Your task to perform on an android device: open app "McDonald's" Image 0: 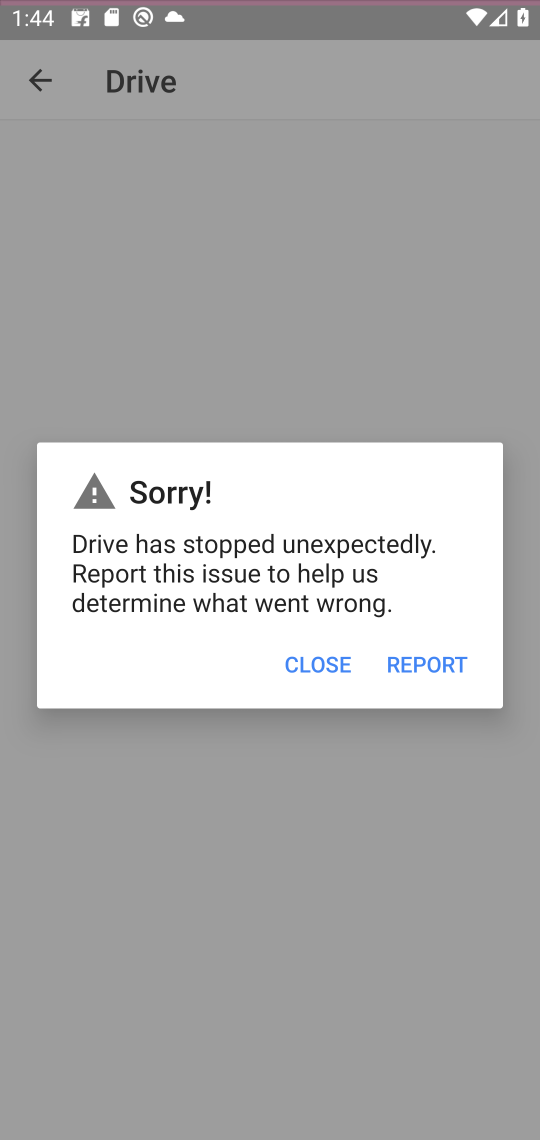
Step 0: press home button
Your task to perform on an android device: open app "McDonald's" Image 1: 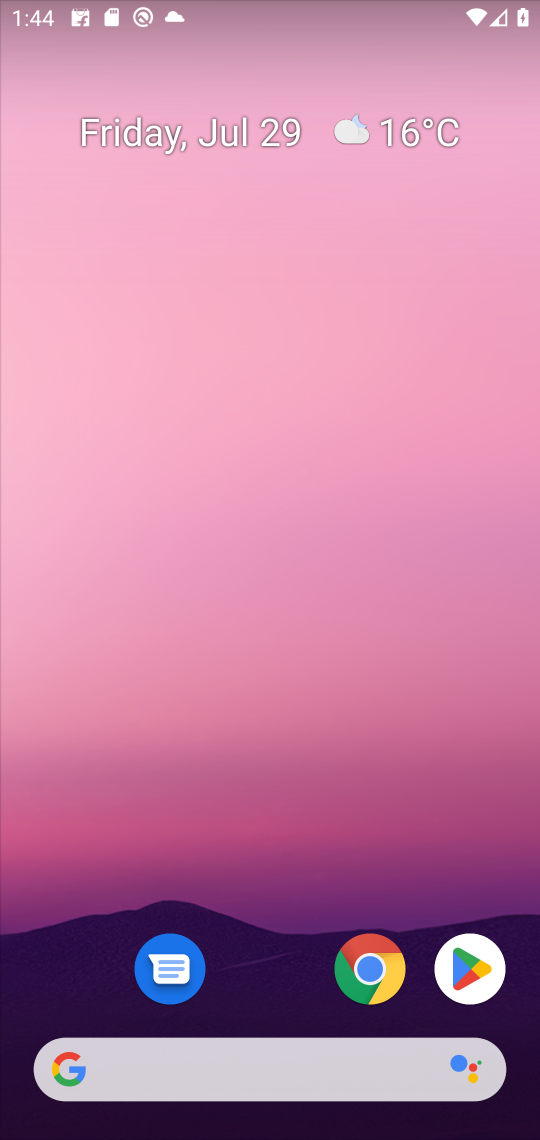
Step 1: click (476, 958)
Your task to perform on an android device: open app "McDonald's" Image 2: 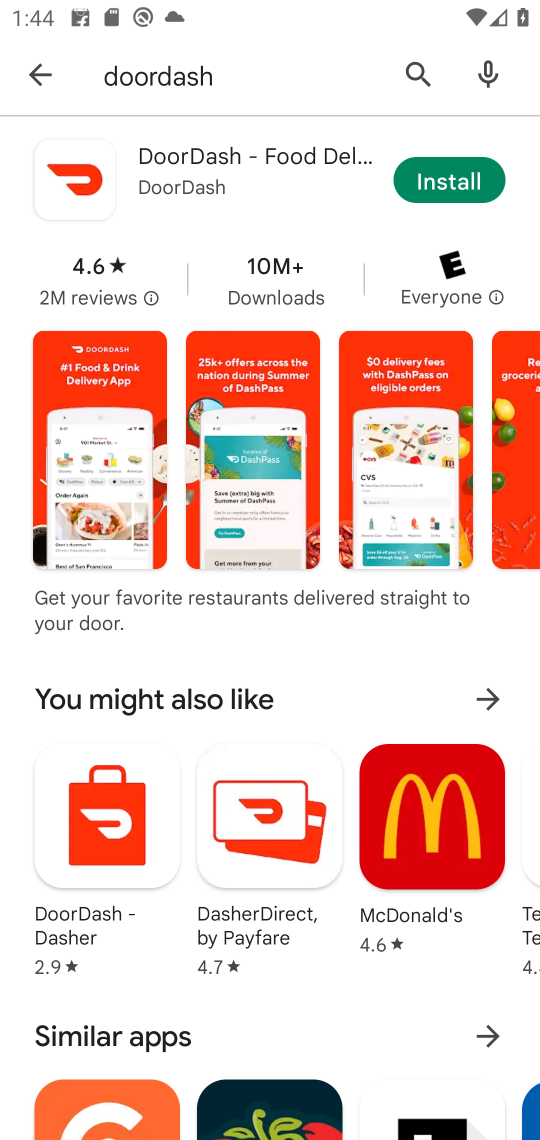
Step 2: click (417, 83)
Your task to perform on an android device: open app "McDonald's" Image 3: 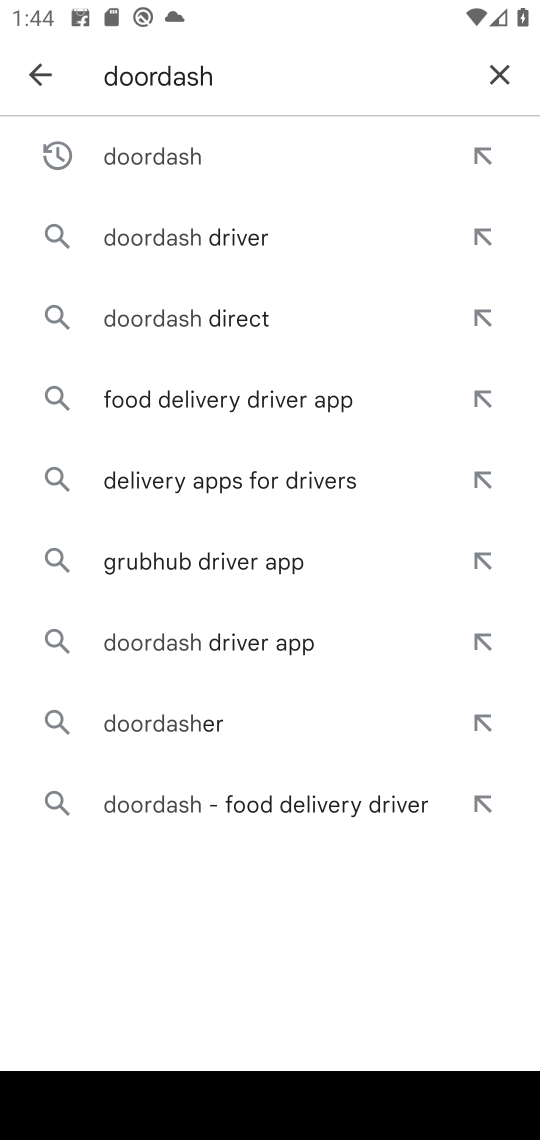
Step 3: click (500, 74)
Your task to perform on an android device: open app "McDonald's" Image 4: 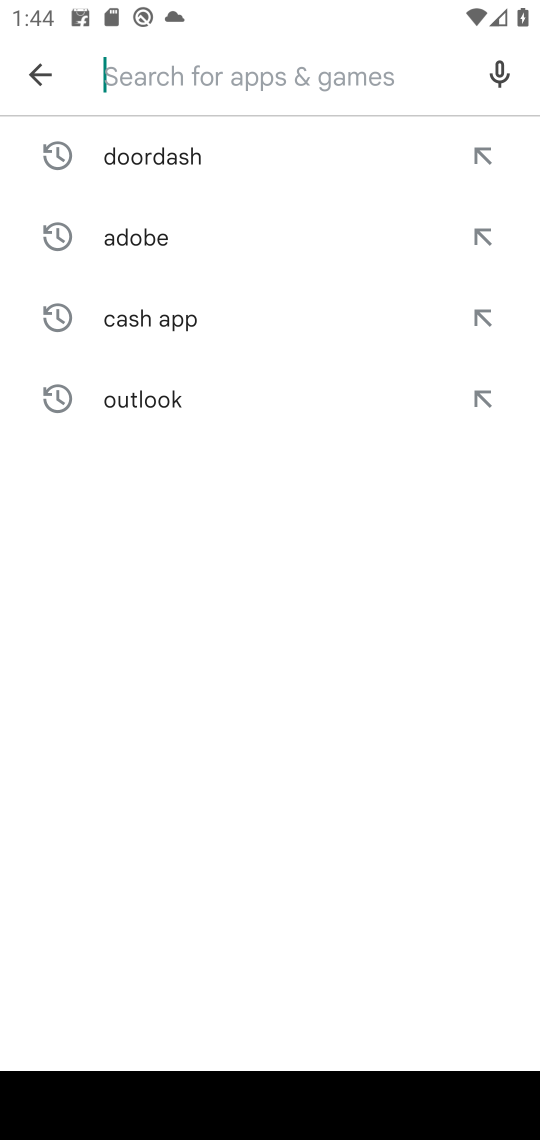
Step 4: type "mcd"
Your task to perform on an android device: open app "McDonald's" Image 5: 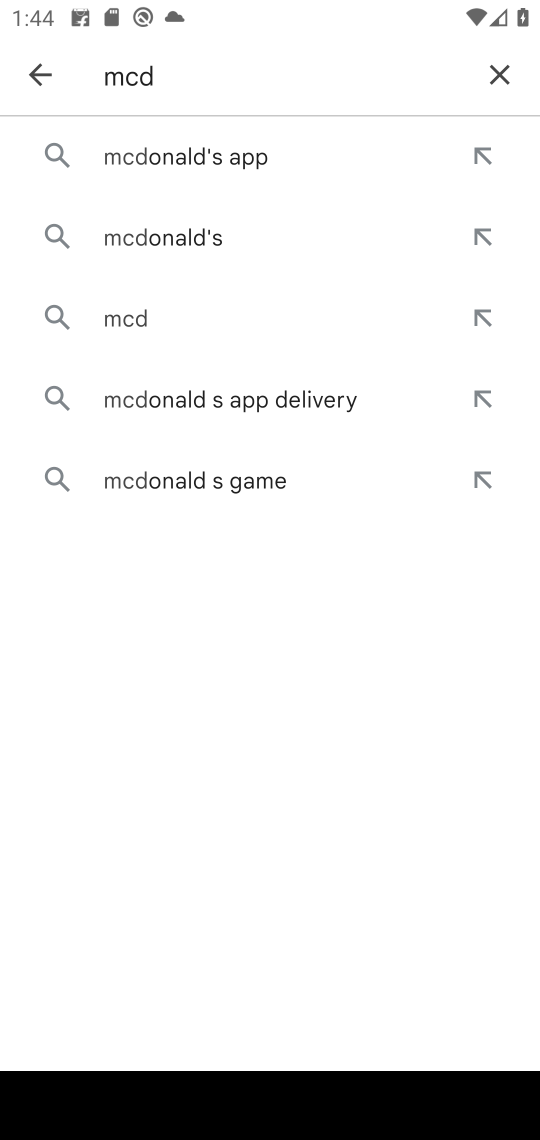
Step 5: click (206, 230)
Your task to perform on an android device: open app "McDonald's" Image 6: 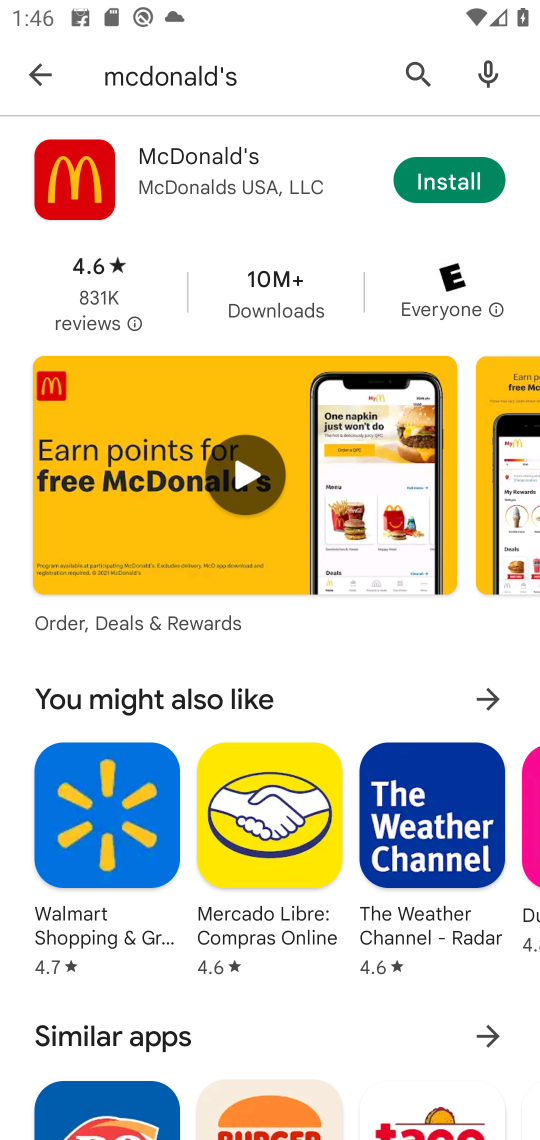
Step 6: task complete